Your task to perform on an android device: Open wifi settings Image 0: 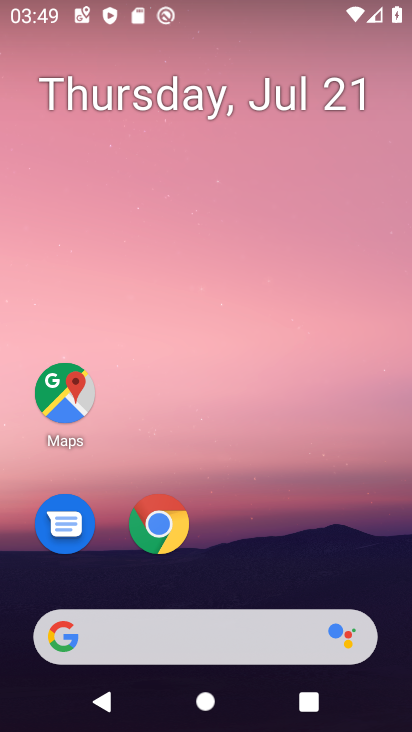
Step 0: drag from (227, 544) to (290, 0)
Your task to perform on an android device: Open wifi settings Image 1: 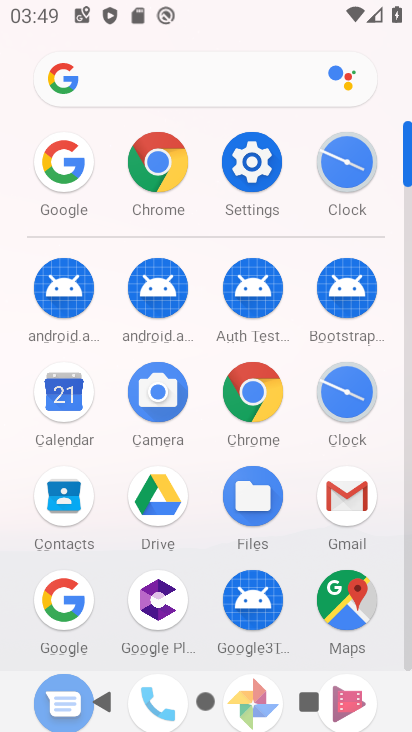
Step 1: click (255, 174)
Your task to perform on an android device: Open wifi settings Image 2: 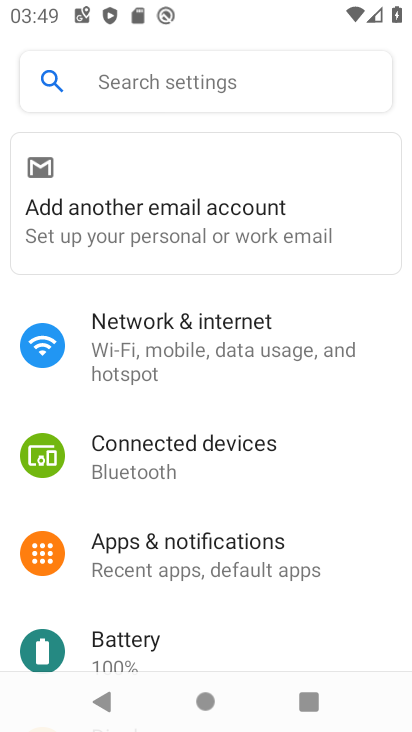
Step 2: click (226, 337)
Your task to perform on an android device: Open wifi settings Image 3: 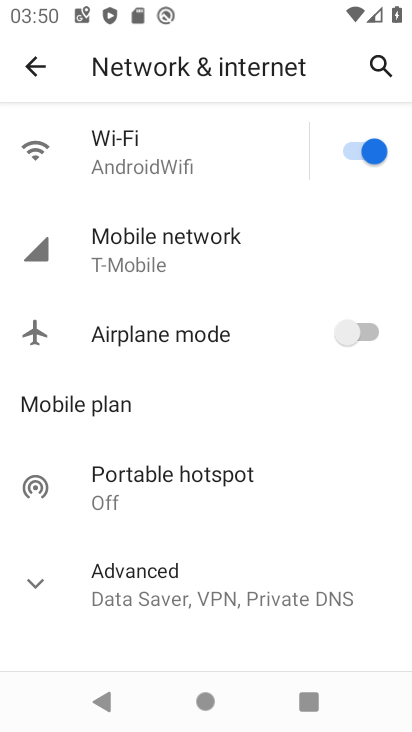
Step 3: click (162, 163)
Your task to perform on an android device: Open wifi settings Image 4: 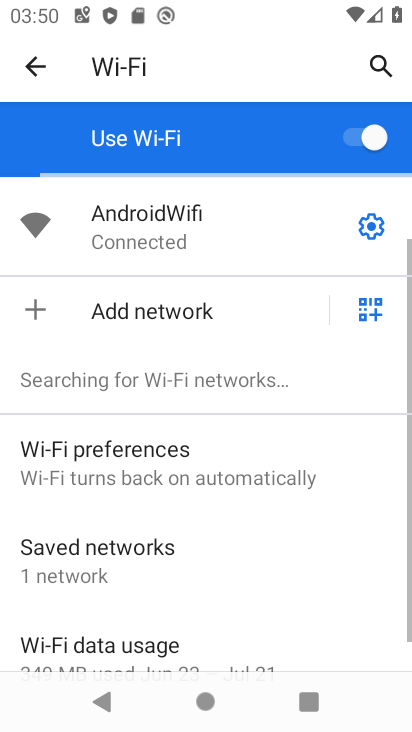
Step 4: task complete